Your task to perform on an android device: toggle javascript in the chrome app Image 0: 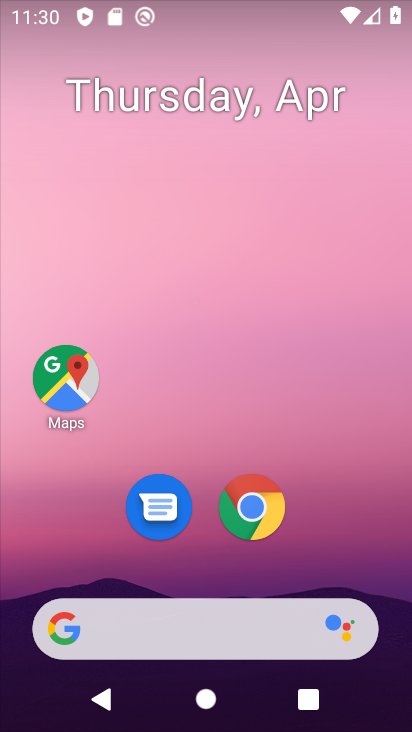
Step 0: click (252, 505)
Your task to perform on an android device: toggle javascript in the chrome app Image 1: 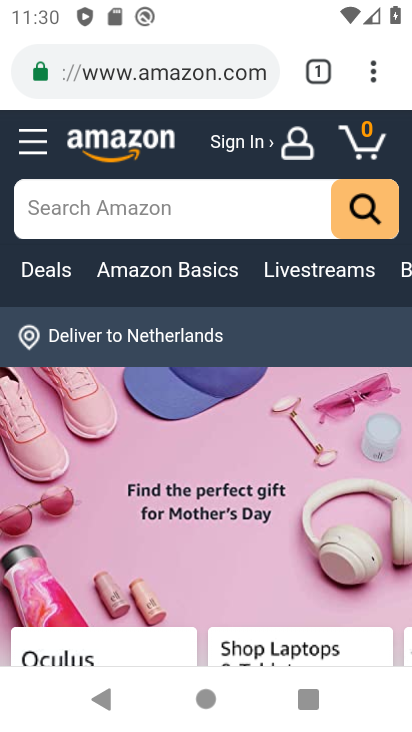
Step 1: drag from (373, 76) to (190, 491)
Your task to perform on an android device: toggle javascript in the chrome app Image 2: 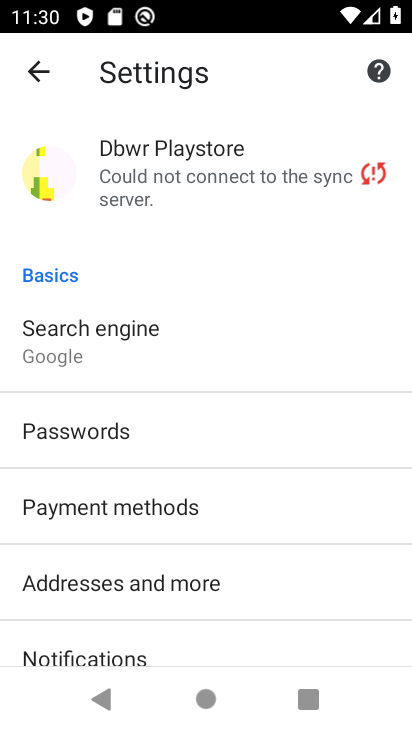
Step 2: drag from (204, 644) to (206, 266)
Your task to perform on an android device: toggle javascript in the chrome app Image 3: 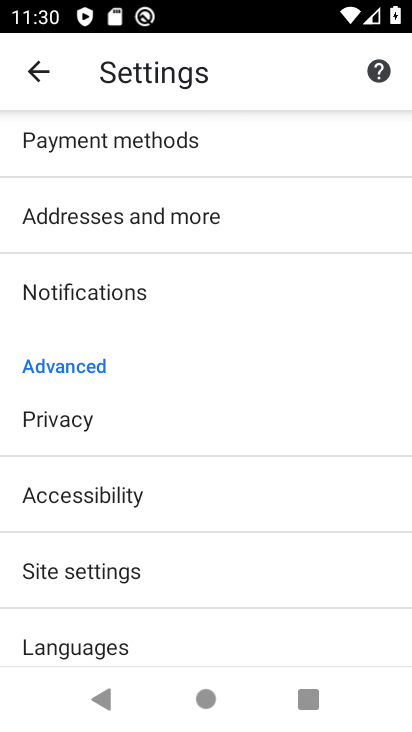
Step 3: click (111, 572)
Your task to perform on an android device: toggle javascript in the chrome app Image 4: 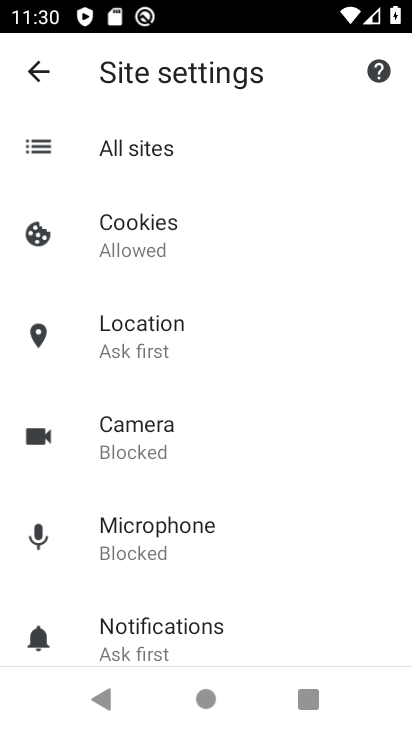
Step 4: drag from (176, 647) to (179, 265)
Your task to perform on an android device: toggle javascript in the chrome app Image 5: 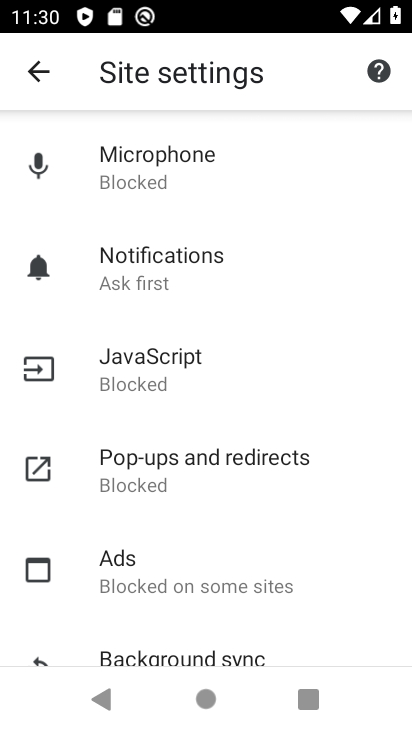
Step 5: click (150, 365)
Your task to perform on an android device: toggle javascript in the chrome app Image 6: 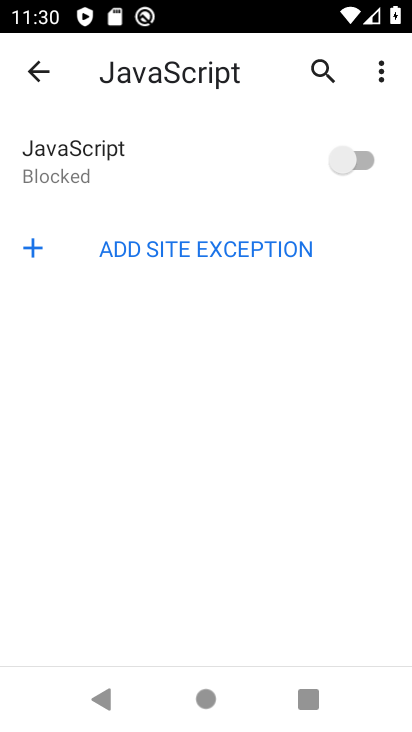
Step 6: click (361, 157)
Your task to perform on an android device: toggle javascript in the chrome app Image 7: 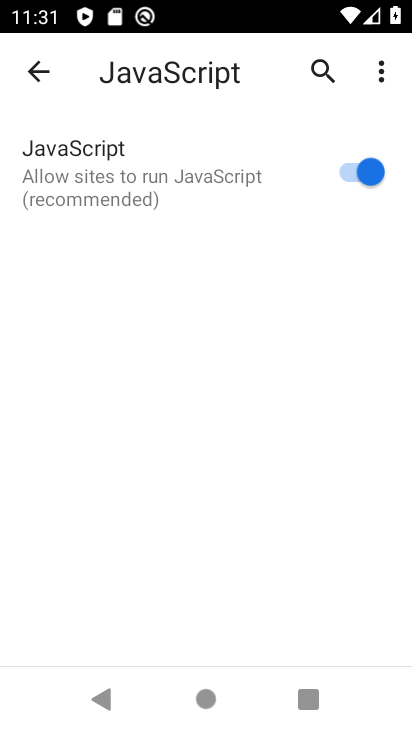
Step 7: task complete